Your task to perform on an android device: Go to network settings Image 0: 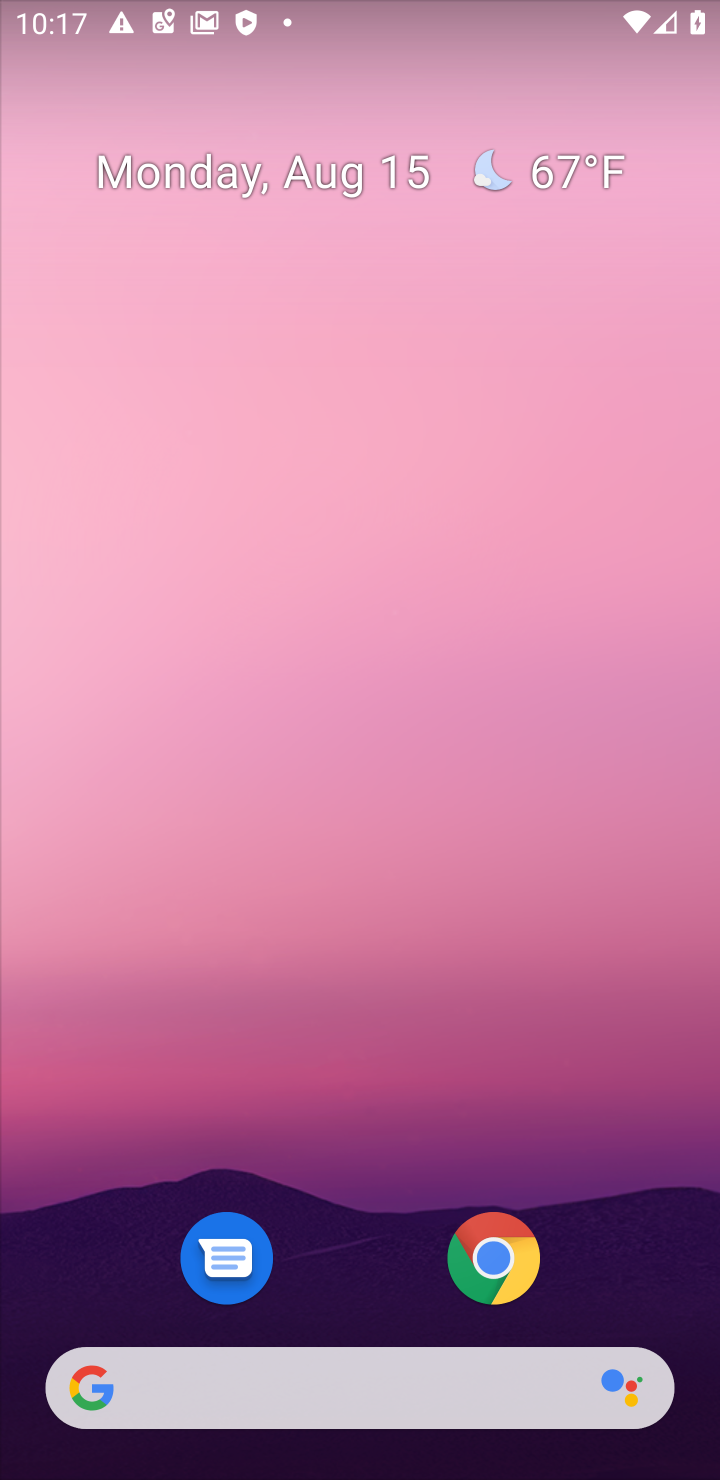
Step 0: drag from (380, 1209) to (279, 4)
Your task to perform on an android device: Go to network settings Image 1: 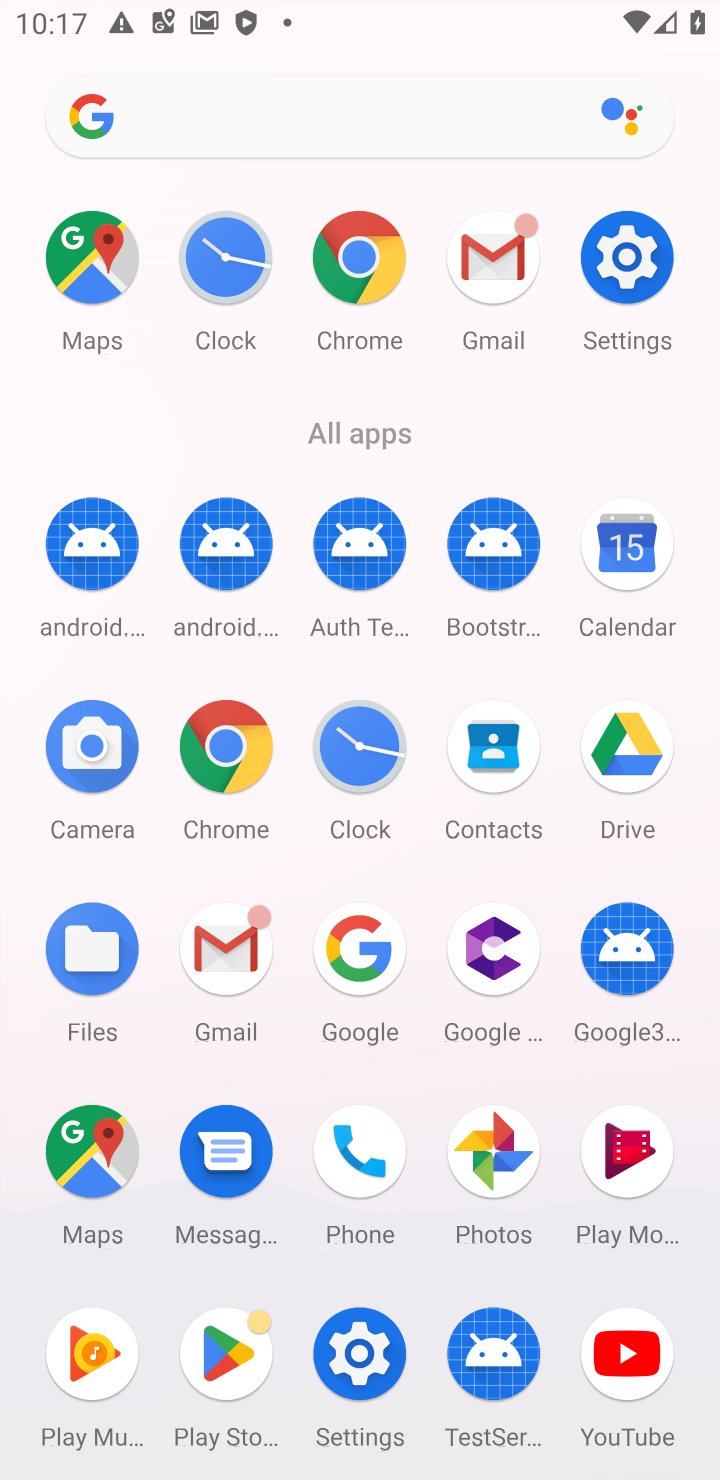
Step 1: click (354, 1332)
Your task to perform on an android device: Go to network settings Image 2: 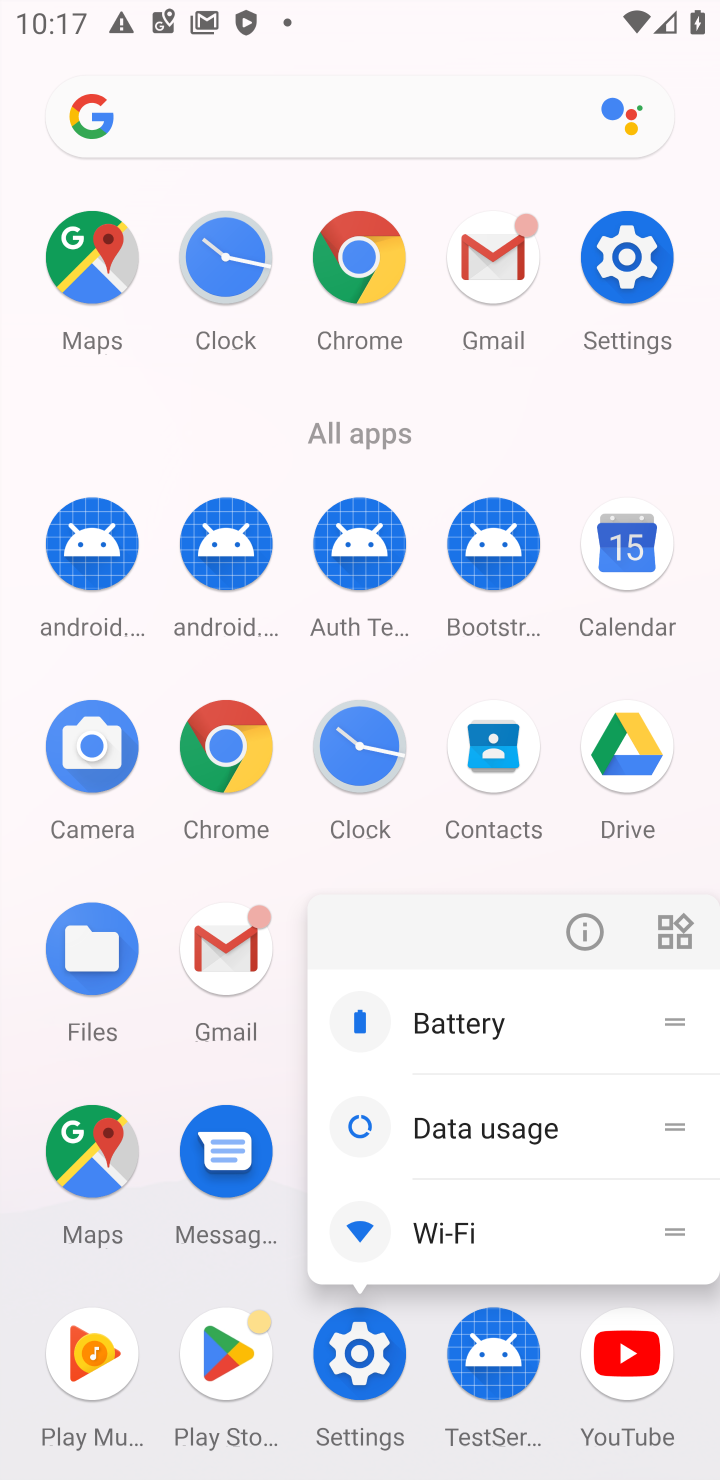
Step 2: click (357, 1336)
Your task to perform on an android device: Go to network settings Image 3: 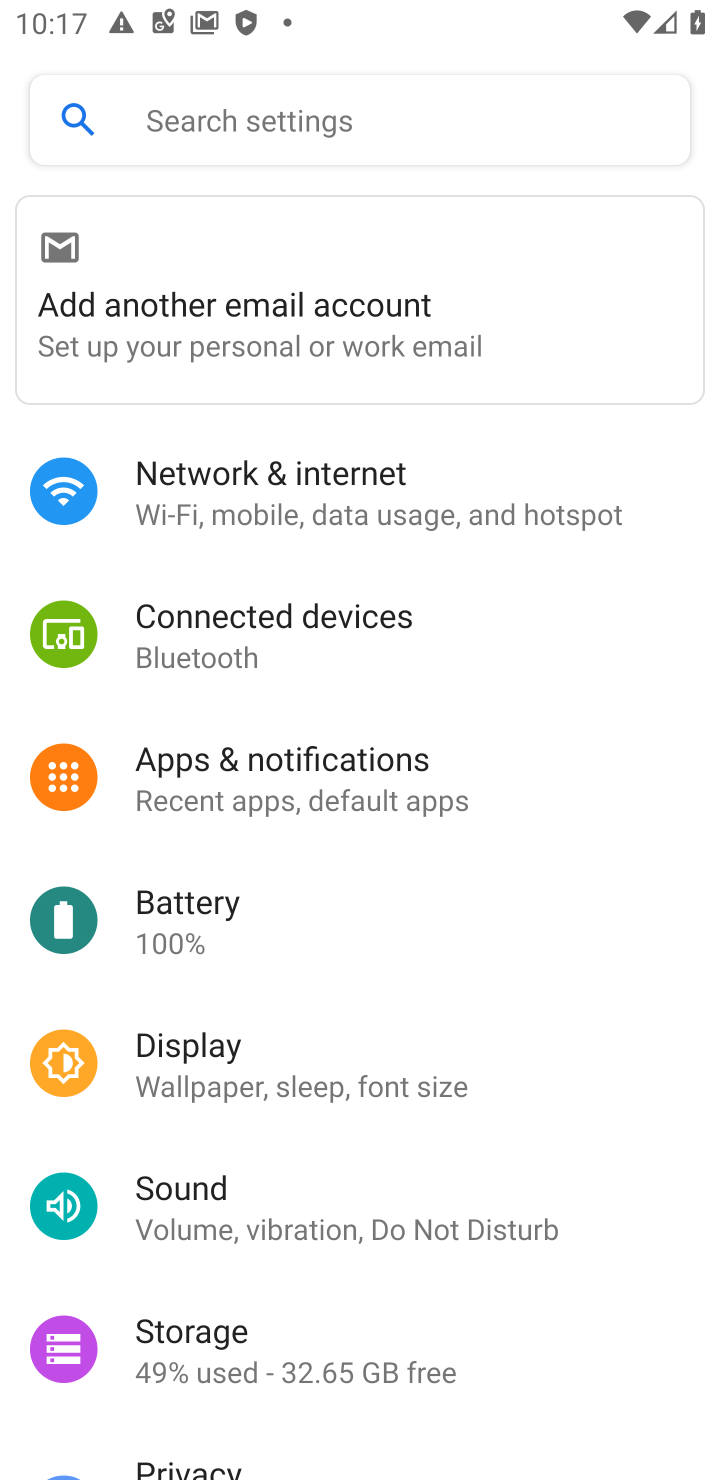
Step 3: click (280, 481)
Your task to perform on an android device: Go to network settings Image 4: 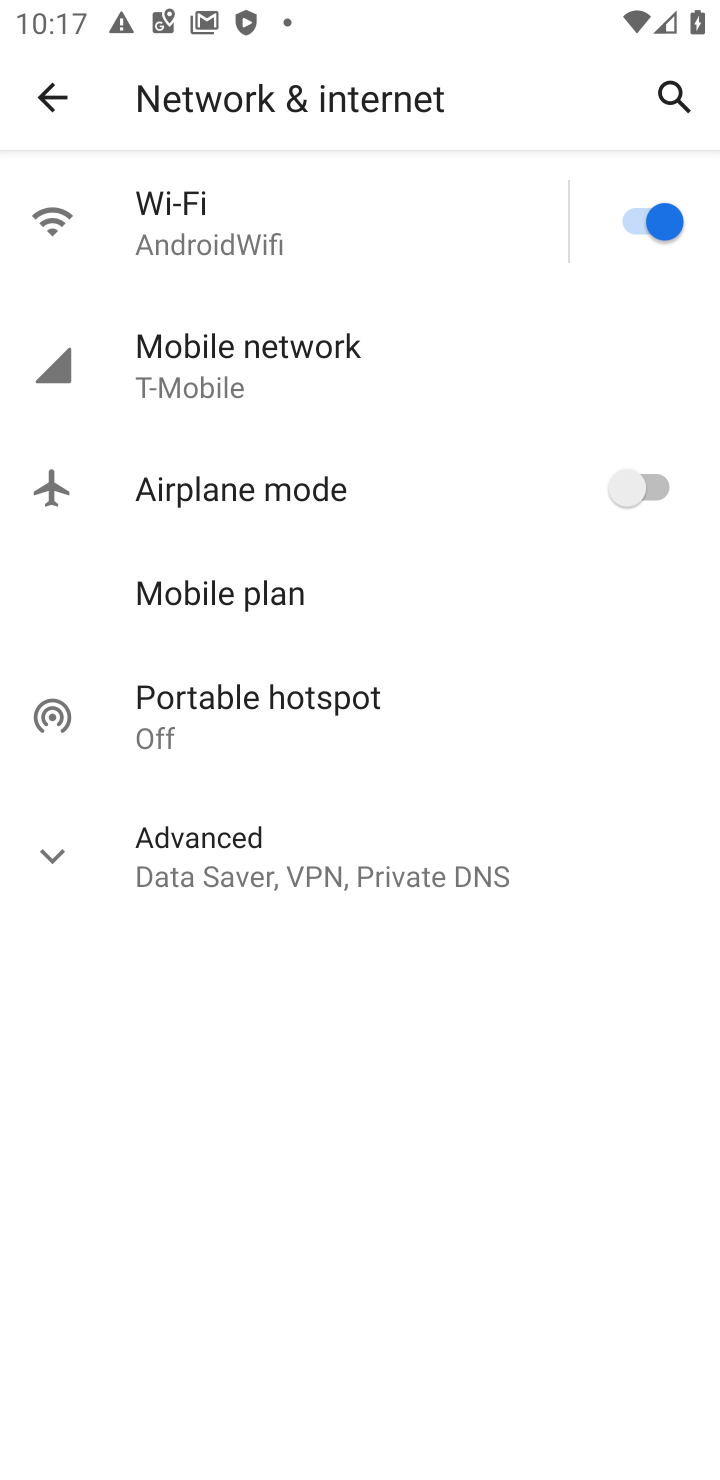
Step 4: task complete